Your task to perform on an android device: Open the calendar app, open the side menu, and click the "Day" option Image 0: 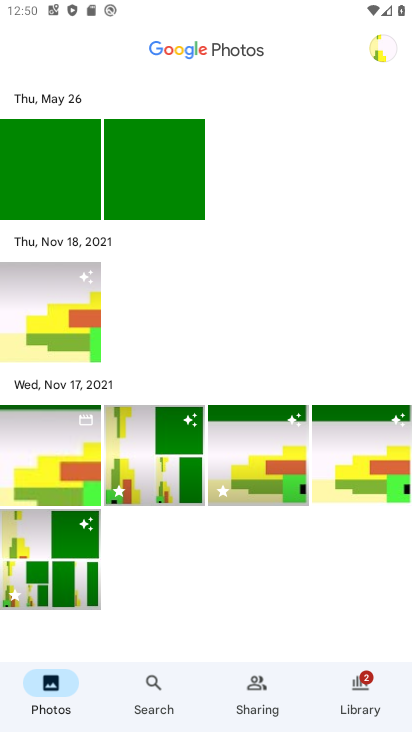
Step 0: press home button
Your task to perform on an android device: Open the calendar app, open the side menu, and click the "Day" option Image 1: 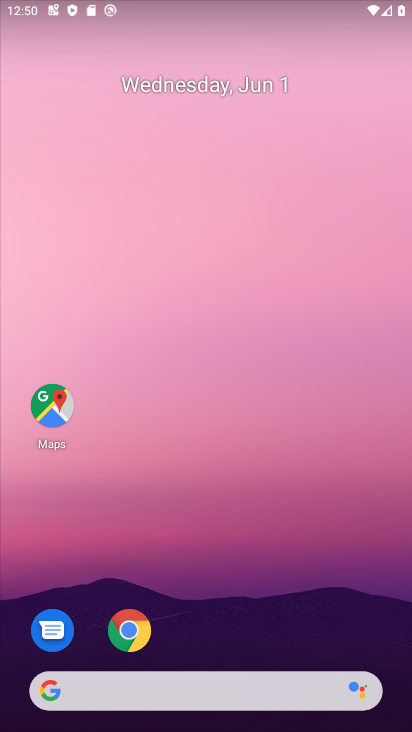
Step 1: drag from (216, 620) to (262, 221)
Your task to perform on an android device: Open the calendar app, open the side menu, and click the "Day" option Image 2: 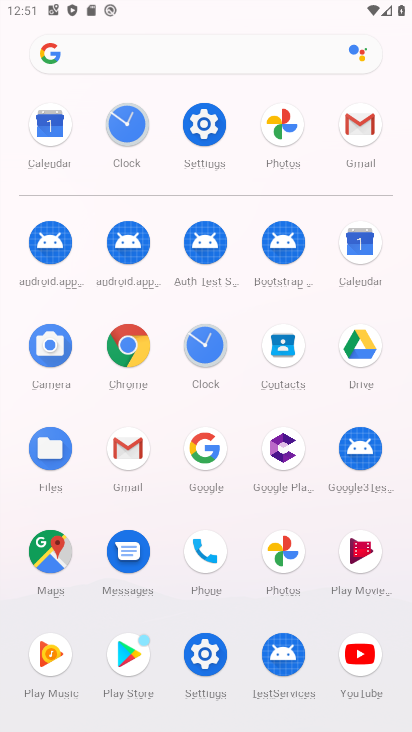
Step 2: click (357, 239)
Your task to perform on an android device: Open the calendar app, open the side menu, and click the "Day" option Image 3: 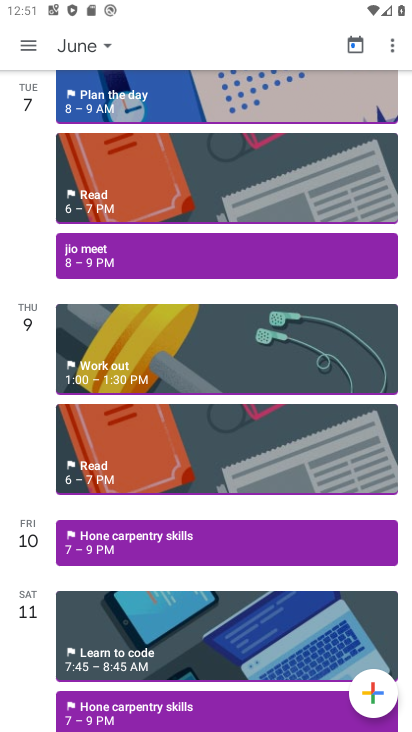
Step 3: click (34, 43)
Your task to perform on an android device: Open the calendar app, open the side menu, and click the "Day" option Image 4: 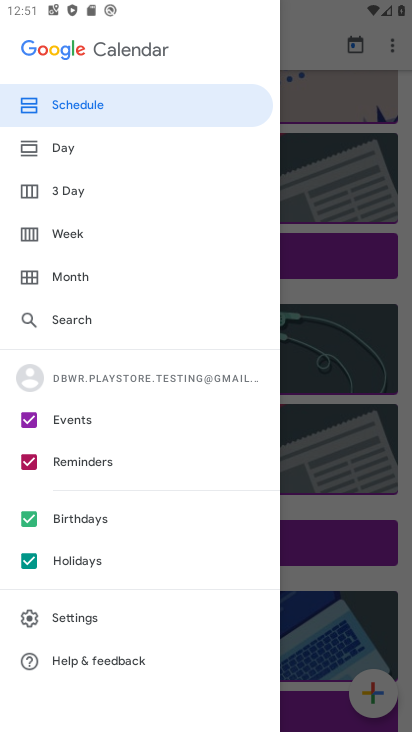
Step 4: click (66, 149)
Your task to perform on an android device: Open the calendar app, open the side menu, and click the "Day" option Image 5: 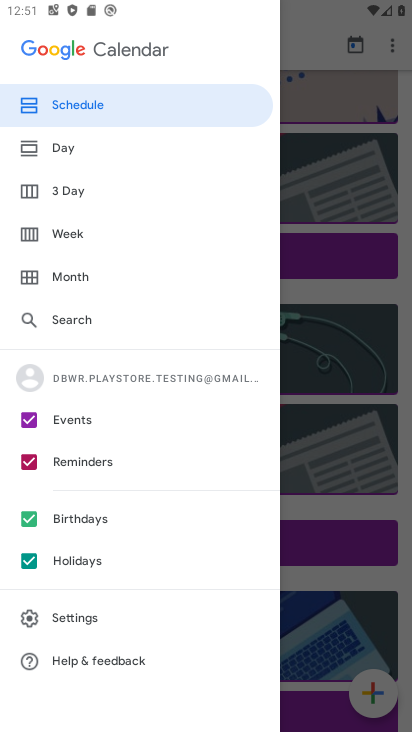
Step 5: click (44, 155)
Your task to perform on an android device: Open the calendar app, open the side menu, and click the "Day" option Image 6: 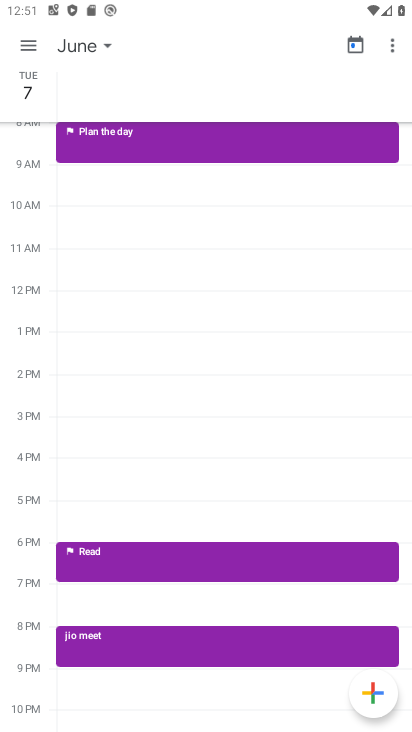
Step 6: task complete